Your task to perform on an android device: Go to accessibility settings Image 0: 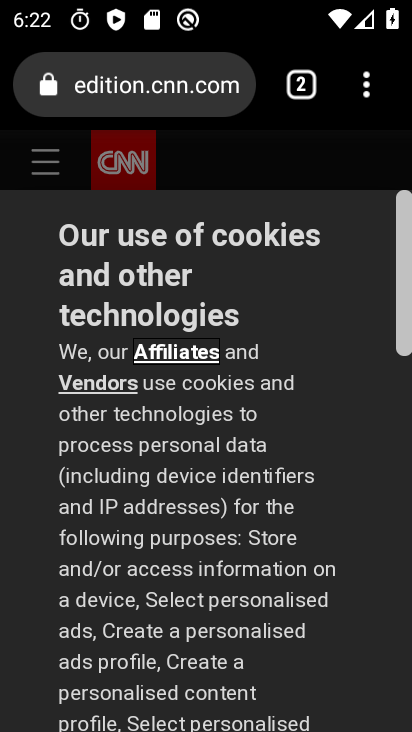
Step 0: press home button
Your task to perform on an android device: Go to accessibility settings Image 1: 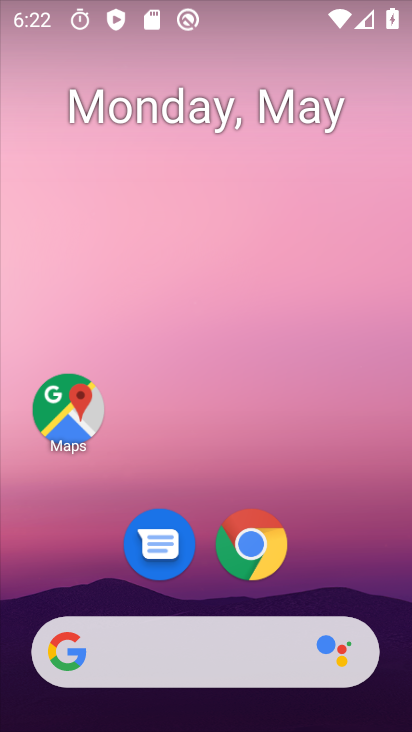
Step 1: drag from (373, 567) to (218, 3)
Your task to perform on an android device: Go to accessibility settings Image 2: 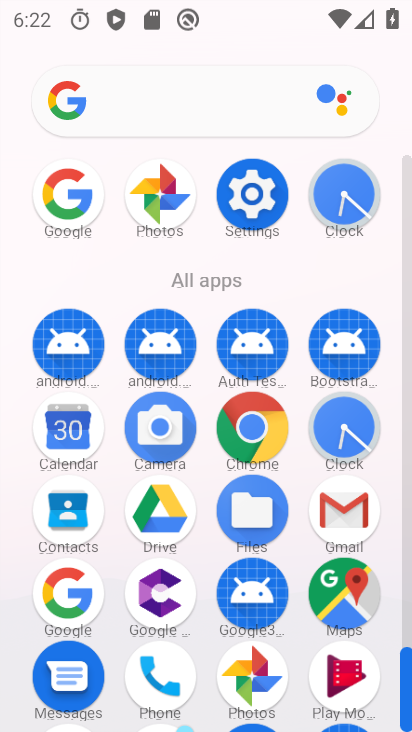
Step 2: click (245, 196)
Your task to perform on an android device: Go to accessibility settings Image 3: 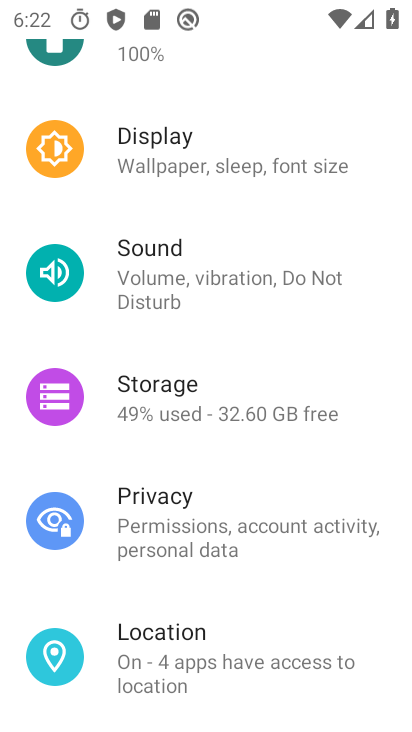
Step 3: drag from (236, 568) to (257, 38)
Your task to perform on an android device: Go to accessibility settings Image 4: 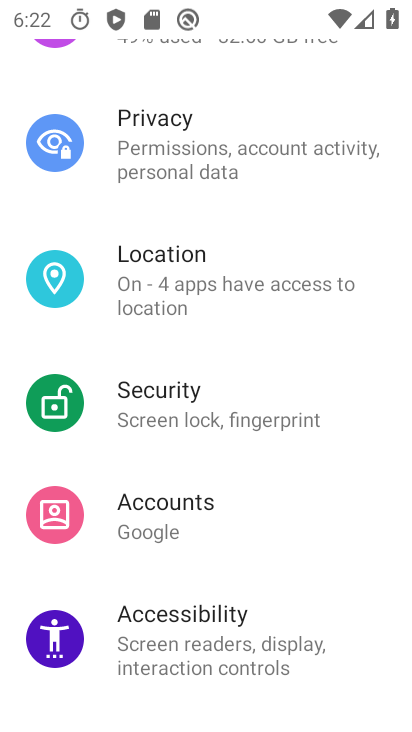
Step 4: click (224, 622)
Your task to perform on an android device: Go to accessibility settings Image 5: 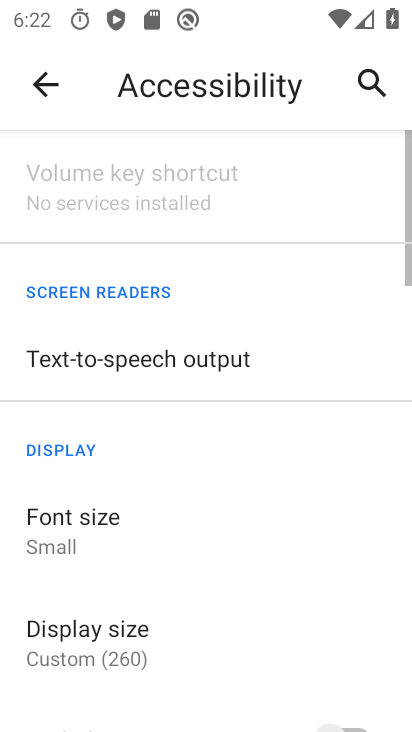
Step 5: task complete